Your task to perform on an android device: Go to Android settings Image 0: 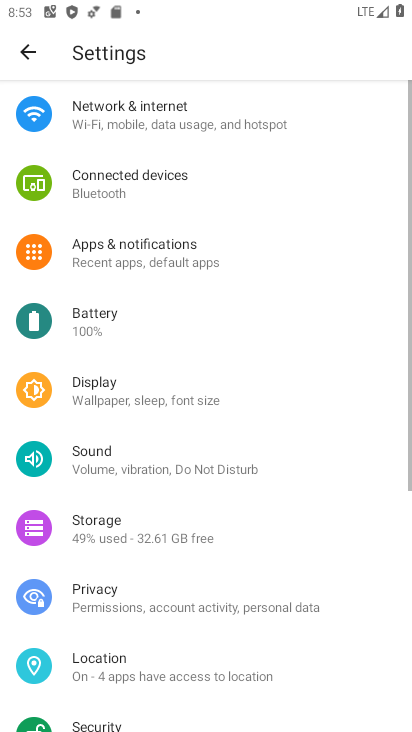
Step 0: drag from (265, 661) to (216, 31)
Your task to perform on an android device: Go to Android settings Image 1: 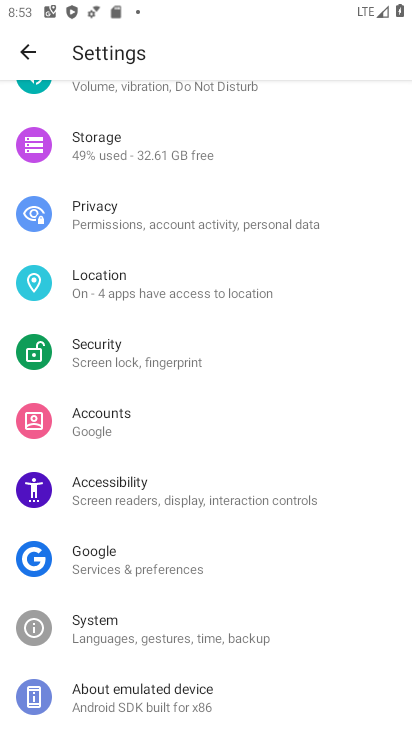
Step 1: click (163, 678)
Your task to perform on an android device: Go to Android settings Image 2: 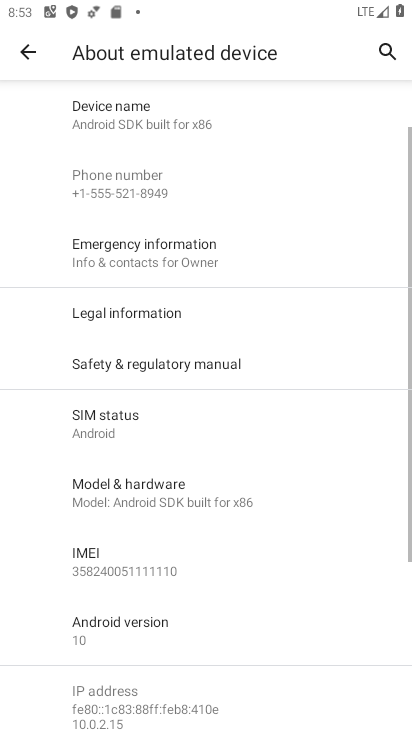
Step 2: drag from (183, 564) to (149, 378)
Your task to perform on an android device: Go to Android settings Image 3: 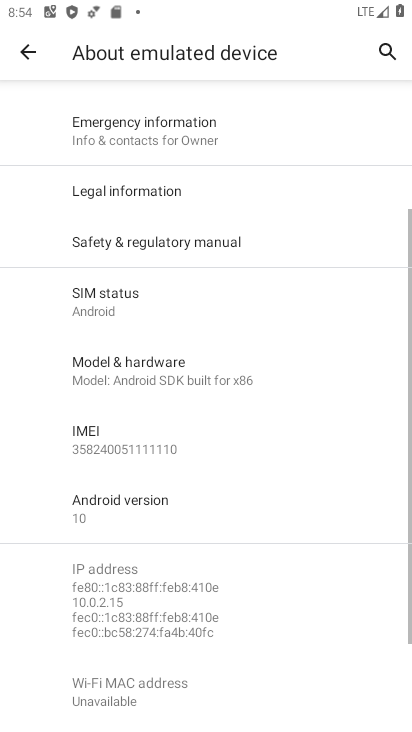
Step 3: click (136, 487)
Your task to perform on an android device: Go to Android settings Image 4: 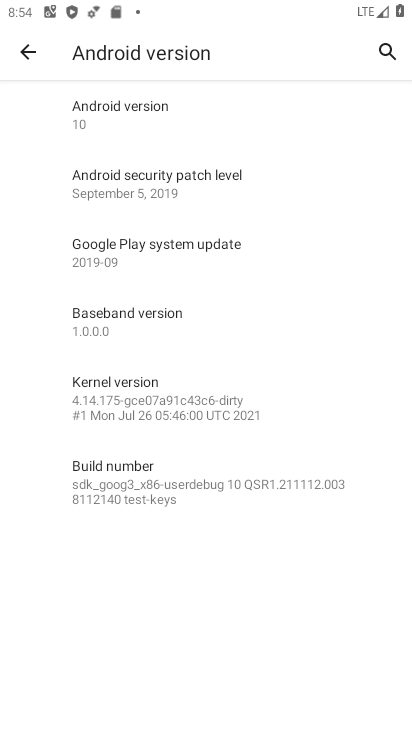
Step 4: click (21, 36)
Your task to perform on an android device: Go to Android settings Image 5: 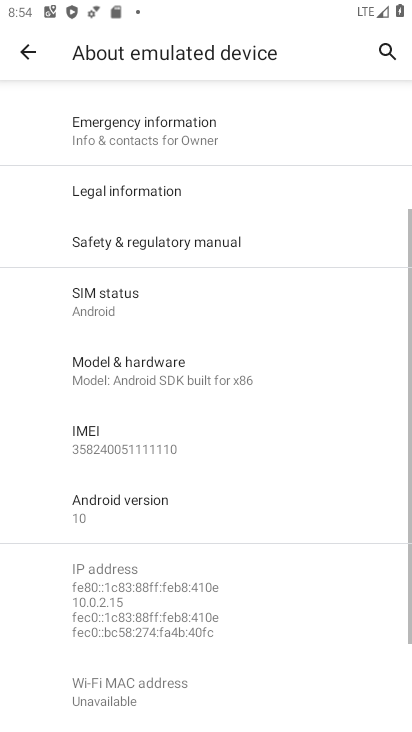
Step 5: task complete